Your task to perform on an android device: Open Google Maps Image 0: 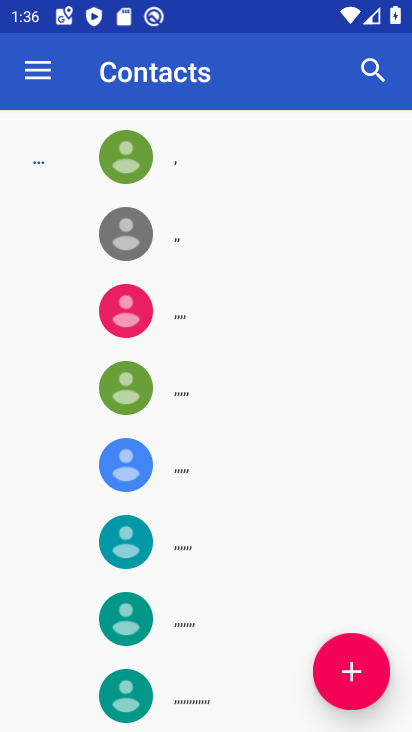
Step 0: press back button
Your task to perform on an android device: Open Google Maps Image 1: 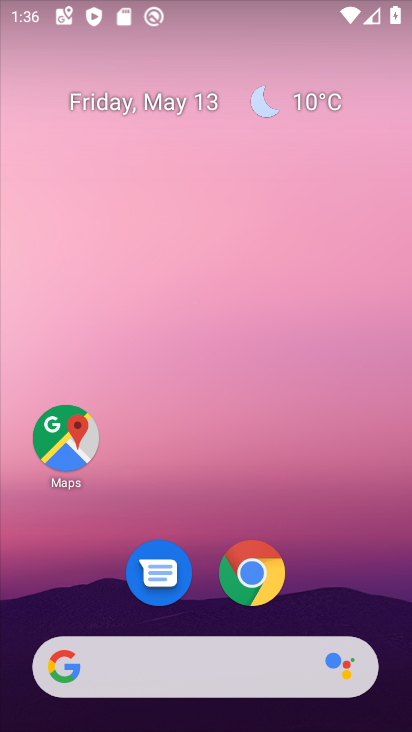
Step 1: drag from (350, 550) to (269, 43)
Your task to perform on an android device: Open Google Maps Image 2: 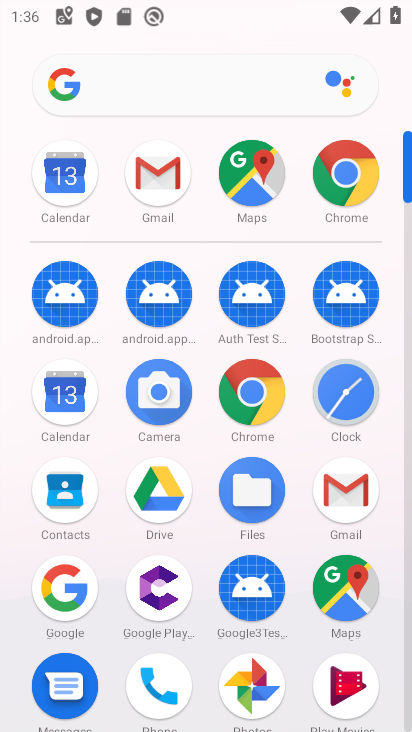
Step 2: click (252, 170)
Your task to perform on an android device: Open Google Maps Image 3: 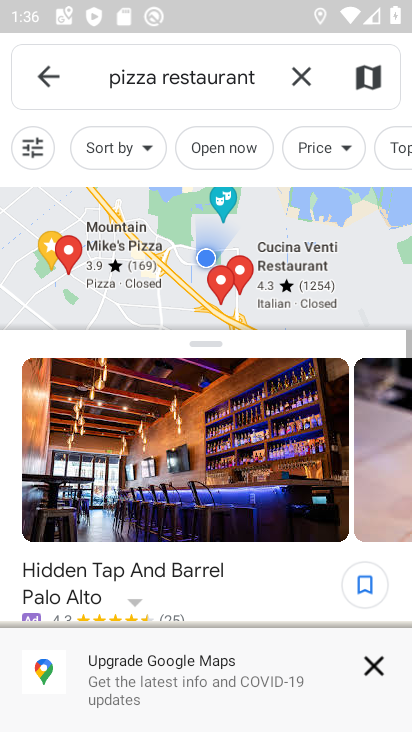
Step 3: click (293, 79)
Your task to perform on an android device: Open Google Maps Image 4: 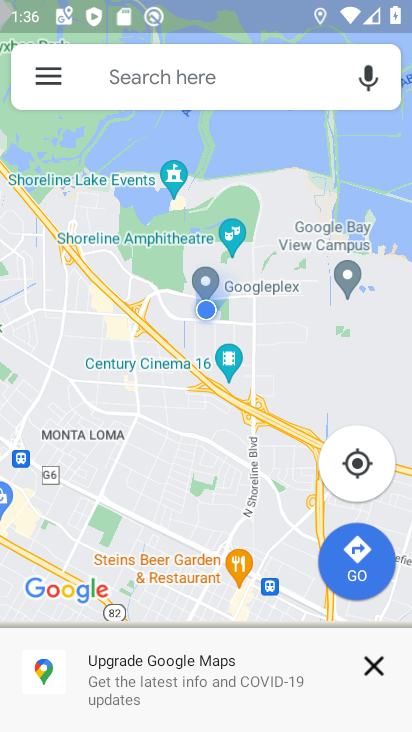
Step 4: task complete